Your task to perform on an android device: Go to accessibility settings Image 0: 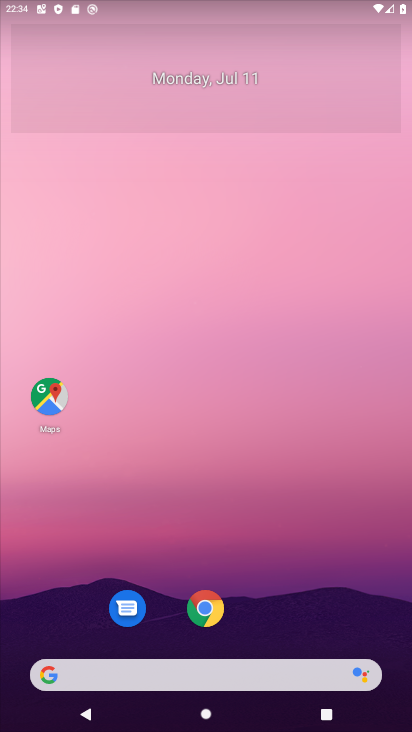
Step 0: drag from (149, 439) to (407, 53)
Your task to perform on an android device: Go to accessibility settings Image 1: 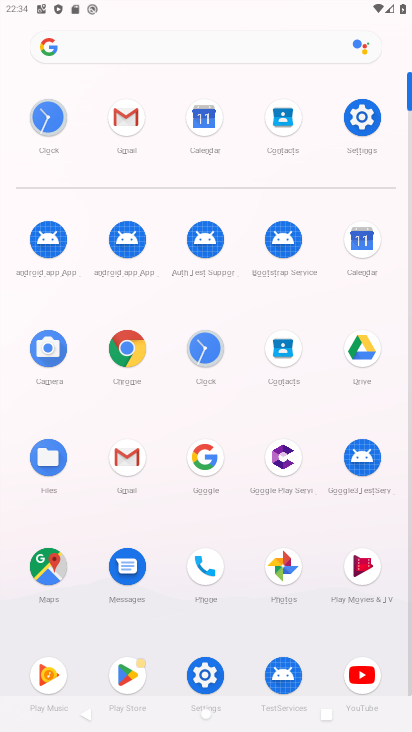
Step 1: click (206, 669)
Your task to perform on an android device: Go to accessibility settings Image 2: 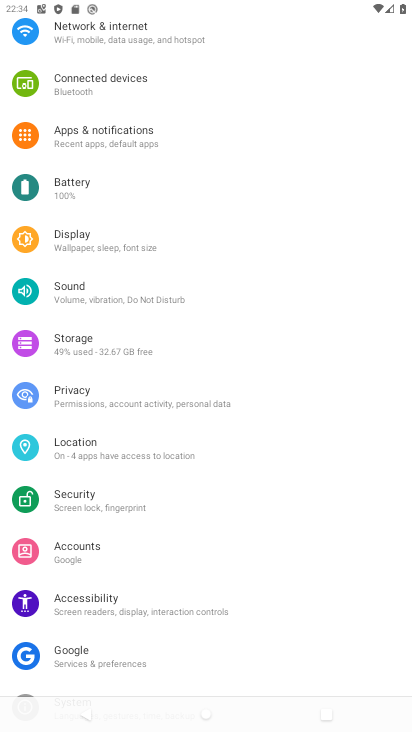
Step 2: click (85, 608)
Your task to perform on an android device: Go to accessibility settings Image 3: 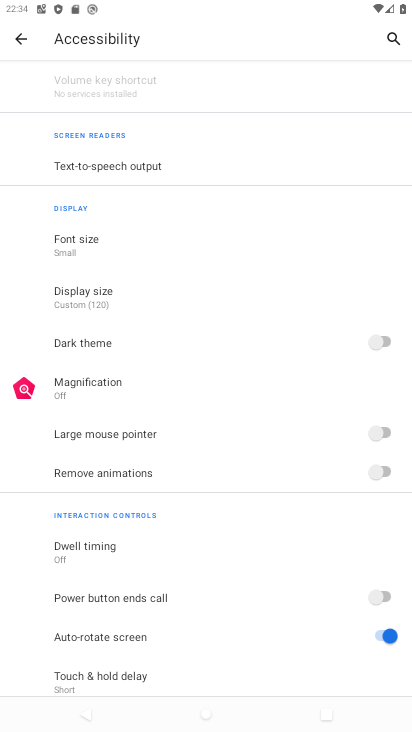
Step 3: task complete